Your task to perform on an android device: Search for Mexican restaurants on Maps Image 0: 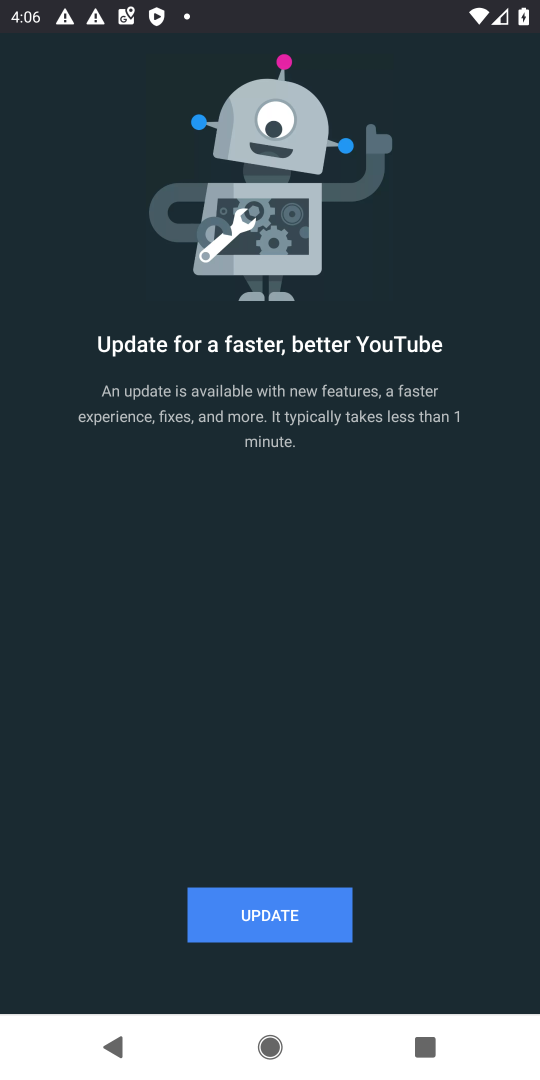
Step 0: press home button
Your task to perform on an android device: Search for Mexican restaurants on Maps Image 1: 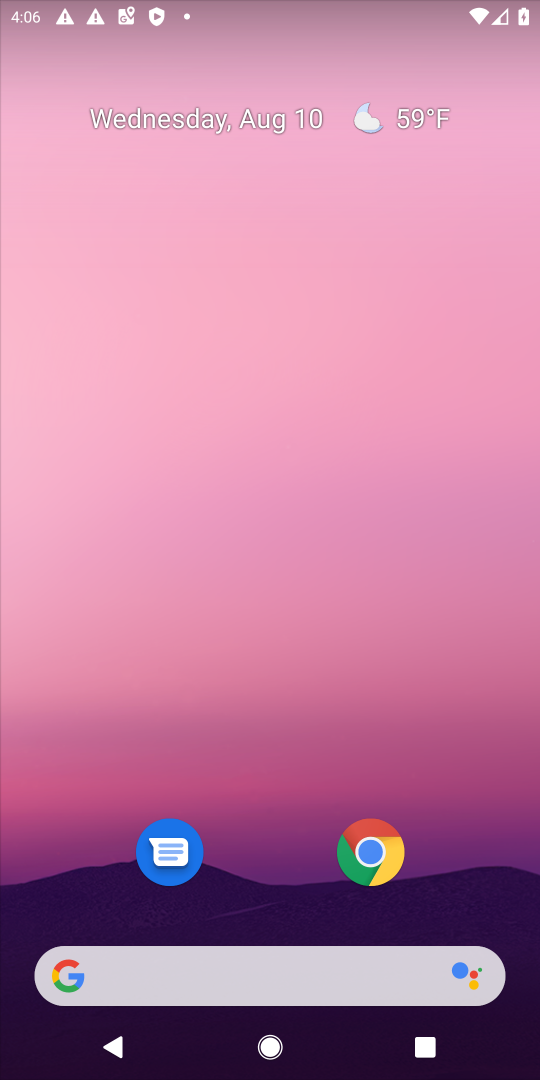
Step 1: drag from (432, 804) to (197, 127)
Your task to perform on an android device: Search for Mexican restaurants on Maps Image 2: 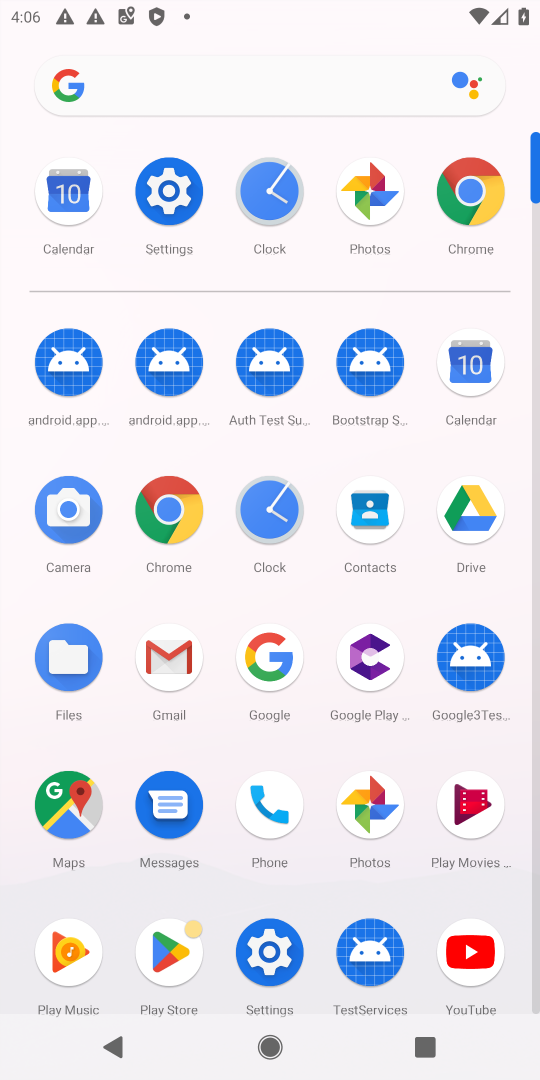
Step 2: click (69, 811)
Your task to perform on an android device: Search for Mexican restaurants on Maps Image 3: 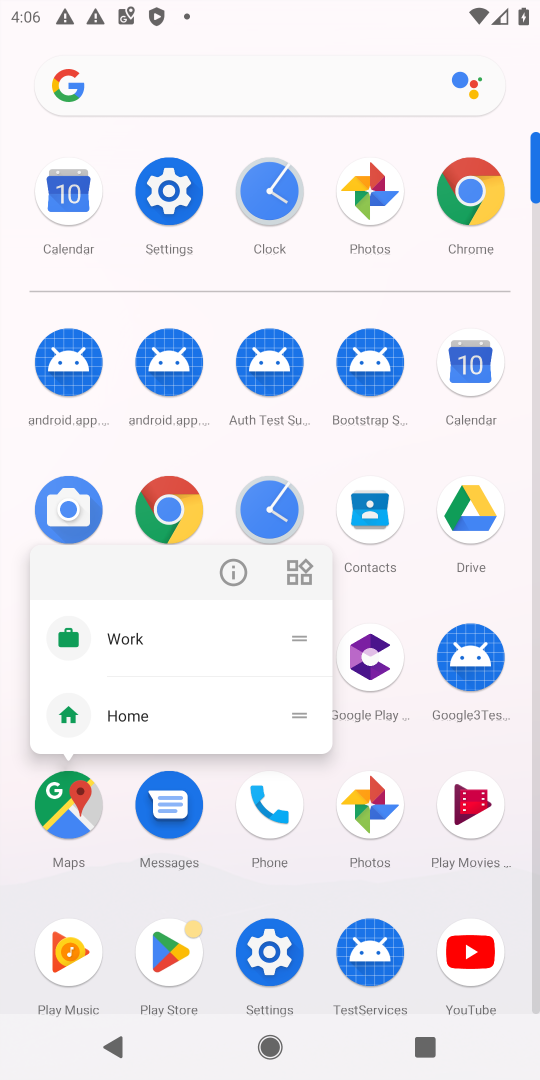
Step 3: click (69, 811)
Your task to perform on an android device: Search for Mexican restaurants on Maps Image 4: 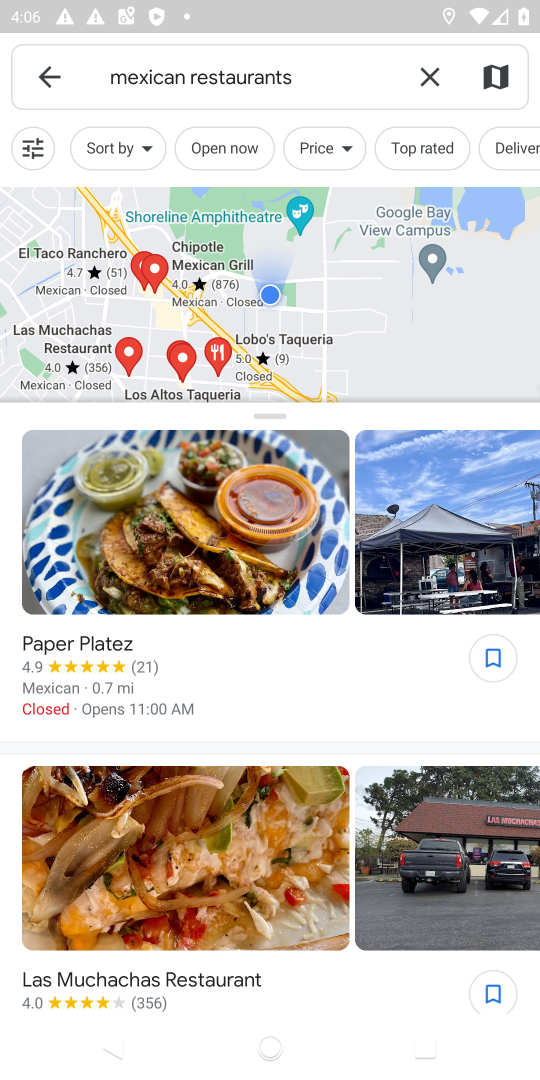
Step 4: task complete